Your task to perform on an android device: Go to network settings Image 0: 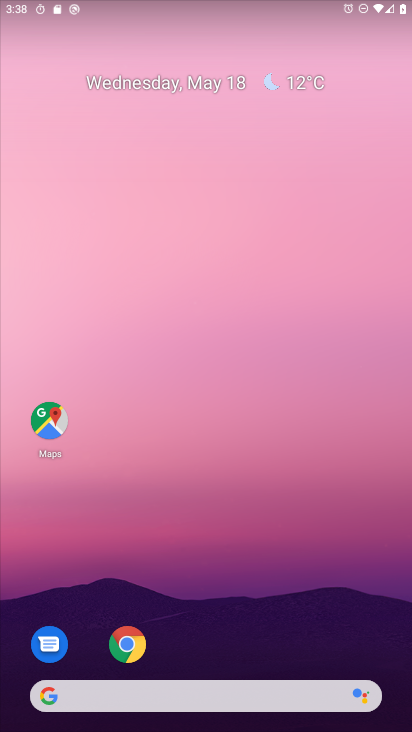
Step 0: drag from (391, 678) to (399, 30)
Your task to perform on an android device: Go to network settings Image 1: 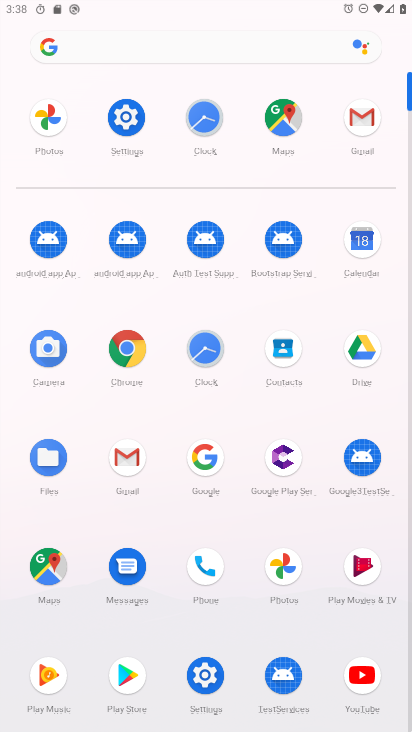
Step 1: click (201, 678)
Your task to perform on an android device: Go to network settings Image 2: 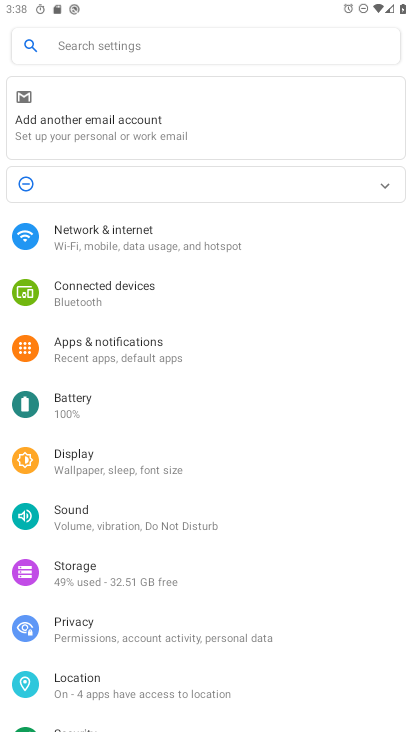
Step 2: click (78, 235)
Your task to perform on an android device: Go to network settings Image 3: 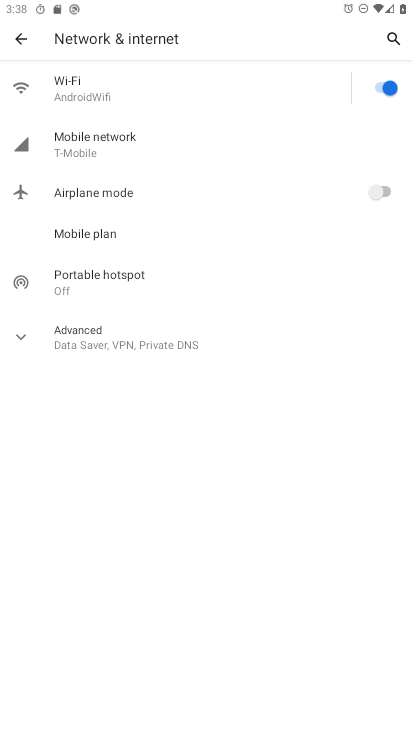
Step 3: click (91, 143)
Your task to perform on an android device: Go to network settings Image 4: 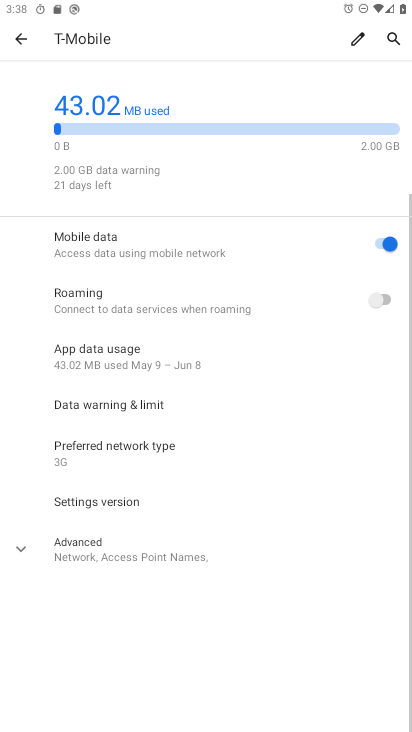
Step 4: task complete